Your task to perform on an android device: open app "Move to iOS" Image 0: 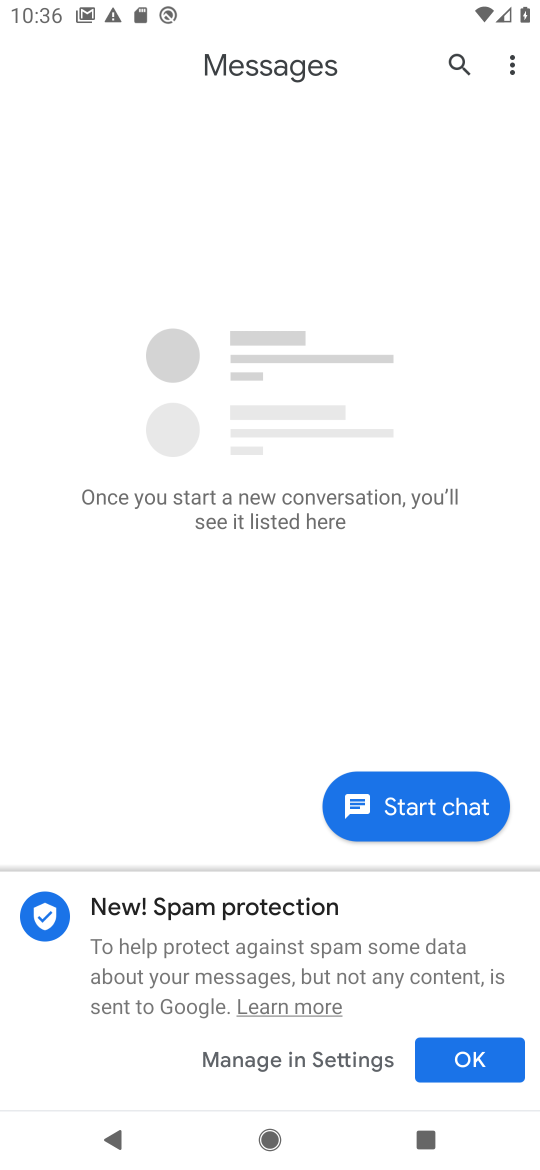
Step 0: press back button
Your task to perform on an android device: open app "Move to iOS" Image 1: 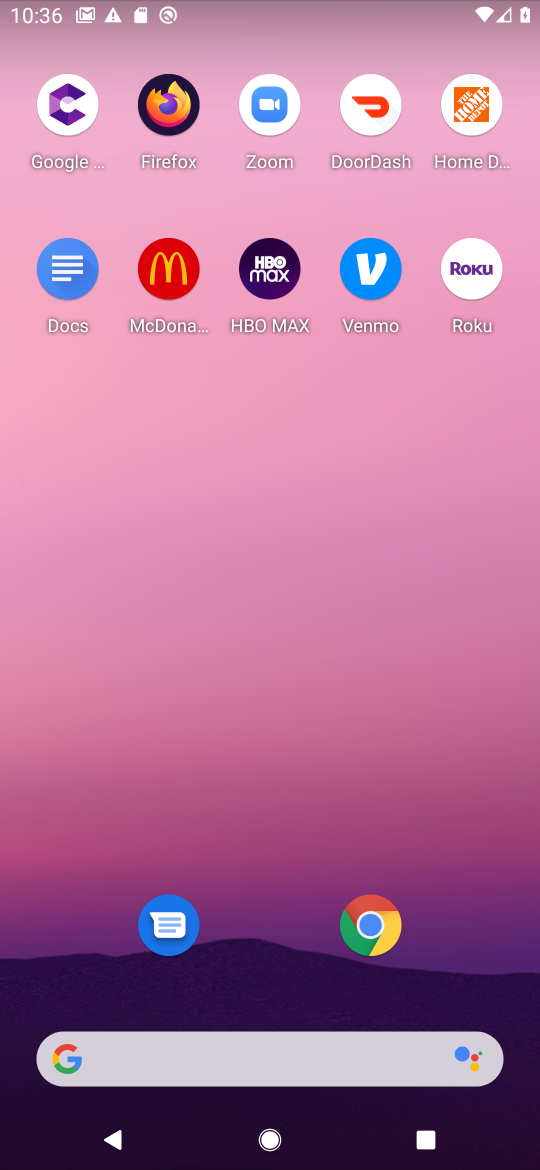
Step 1: drag from (220, 988) to (350, 172)
Your task to perform on an android device: open app "Move to iOS" Image 2: 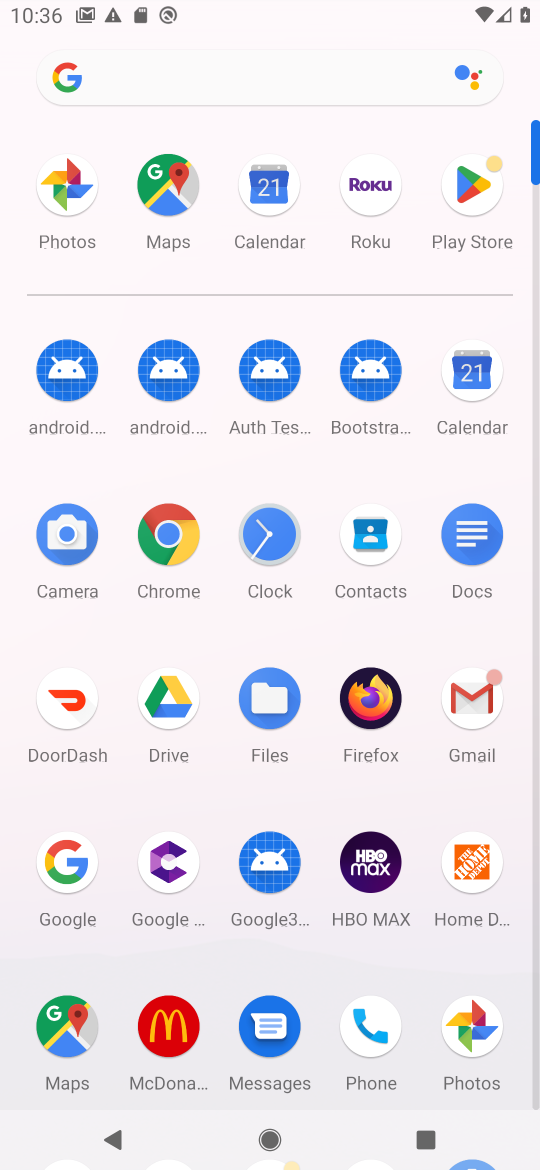
Step 2: click (454, 185)
Your task to perform on an android device: open app "Move to iOS" Image 3: 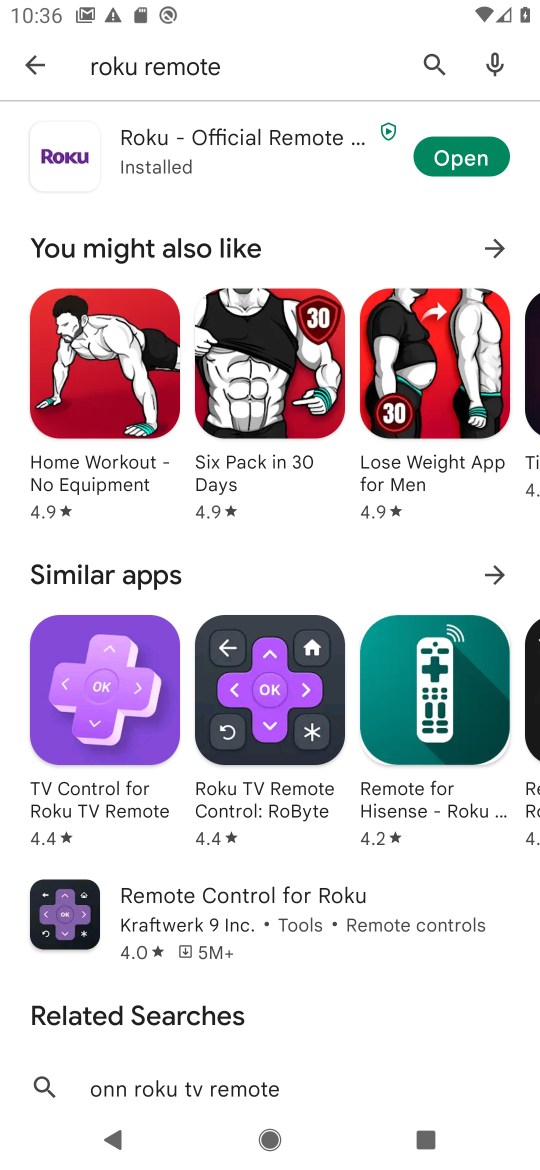
Step 3: click (427, 50)
Your task to perform on an android device: open app "Move to iOS" Image 4: 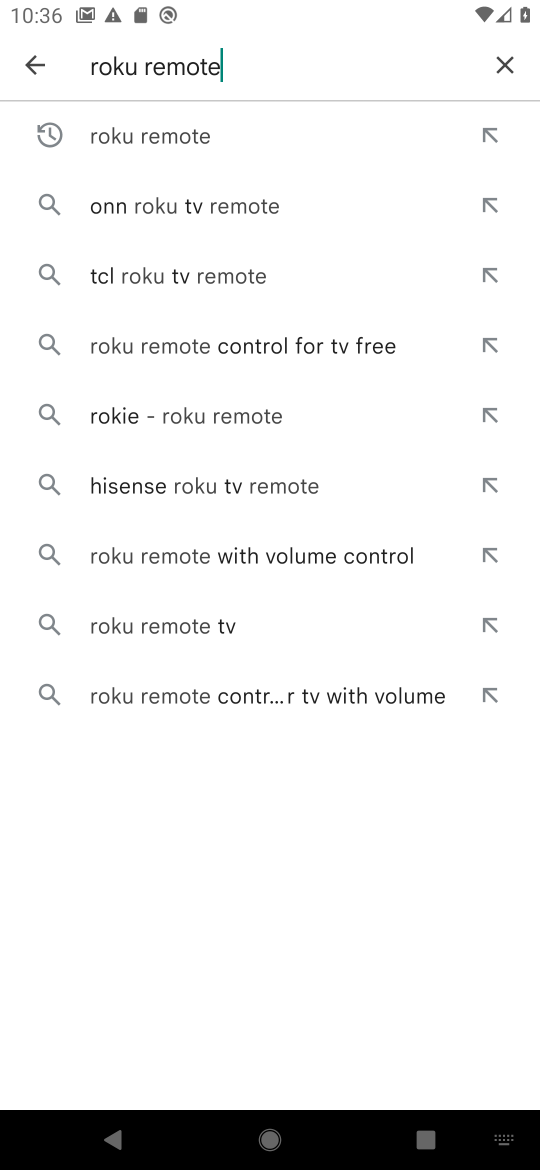
Step 4: click (502, 63)
Your task to perform on an android device: open app "Move to iOS" Image 5: 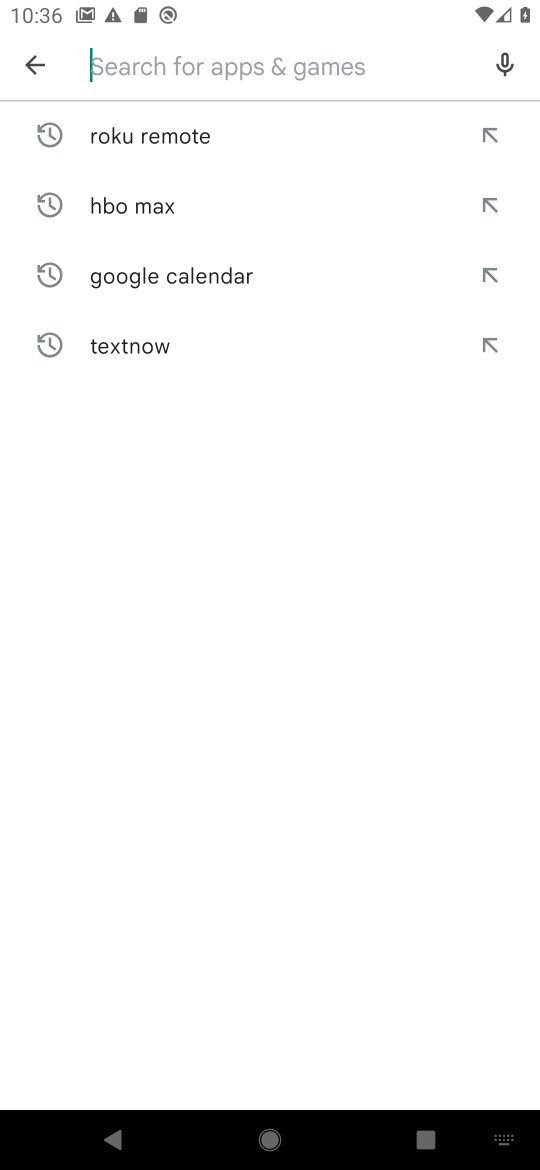
Step 5: click (206, 62)
Your task to perform on an android device: open app "Move to iOS" Image 6: 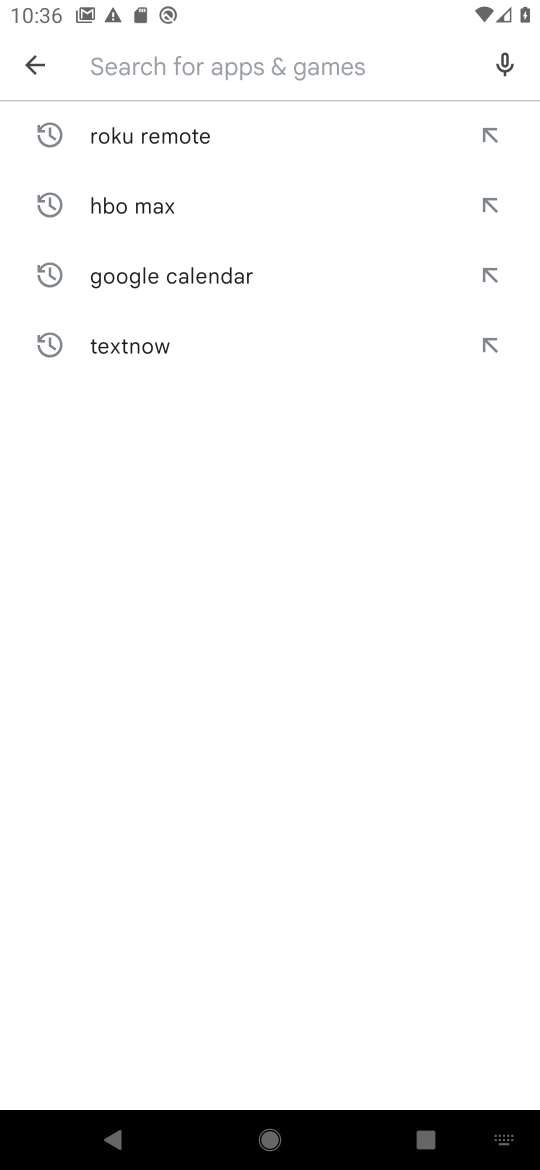
Step 6: type "move  to ios"
Your task to perform on an android device: open app "Move to iOS" Image 7: 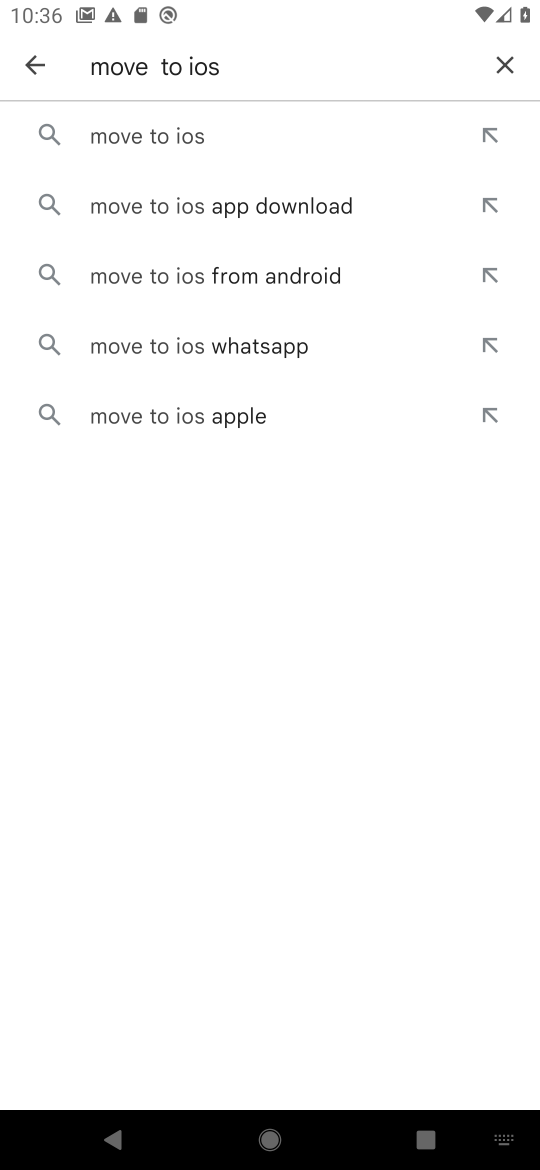
Step 7: click (213, 139)
Your task to perform on an android device: open app "Move to iOS" Image 8: 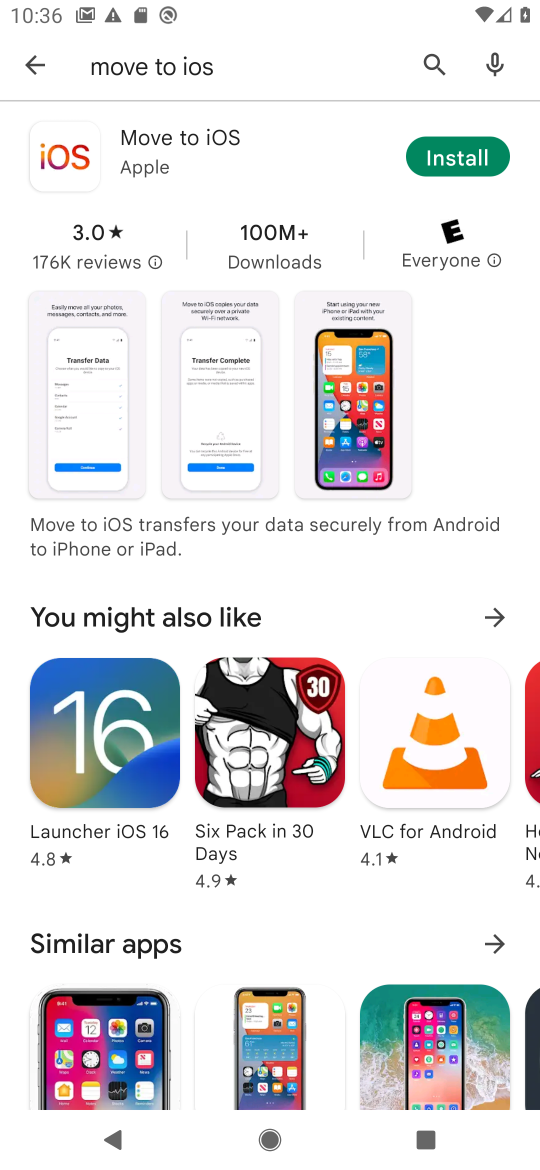
Step 8: task complete